Your task to perform on an android device: What's on my calendar tomorrow? Image 0: 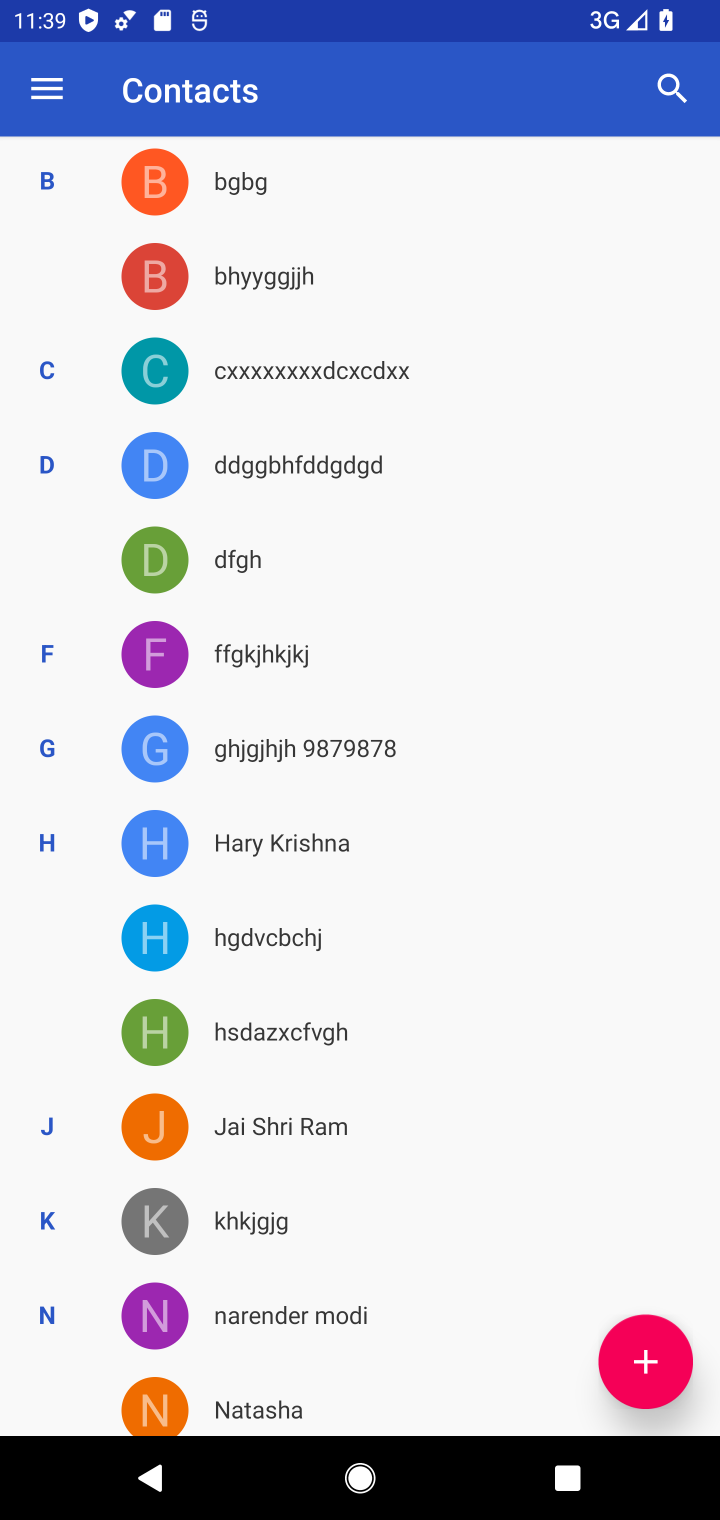
Step 0: press home button
Your task to perform on an android device: What's on my calendar tomorrow? Image 1: 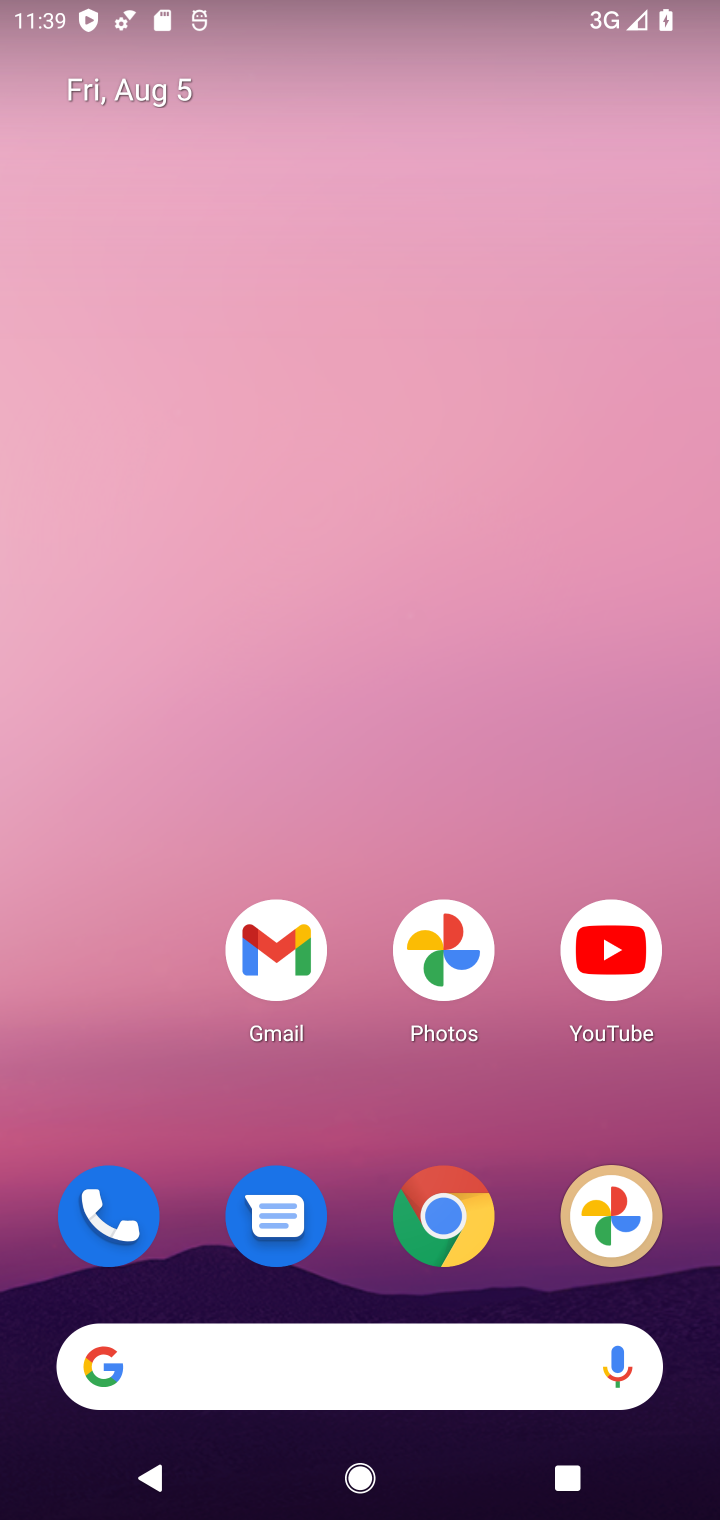
Step 1: drag from (461, 1369) to (528, 185)
Your task to perform on an android device: What's on my calendar tomorrow? Image 2: 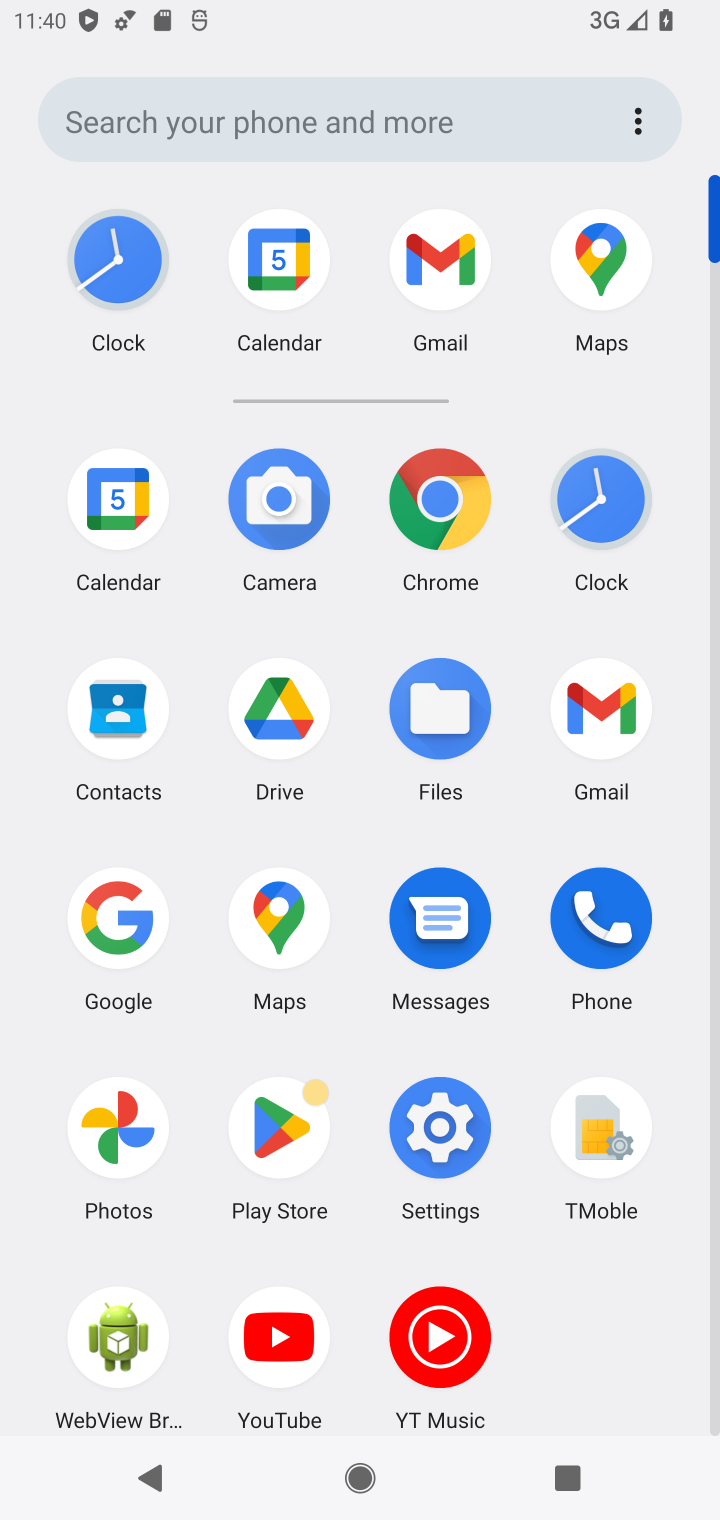
Step 2: click (88, 488)
Your task to perform on an android device: What's on my calendar tomorrow? Image 3: 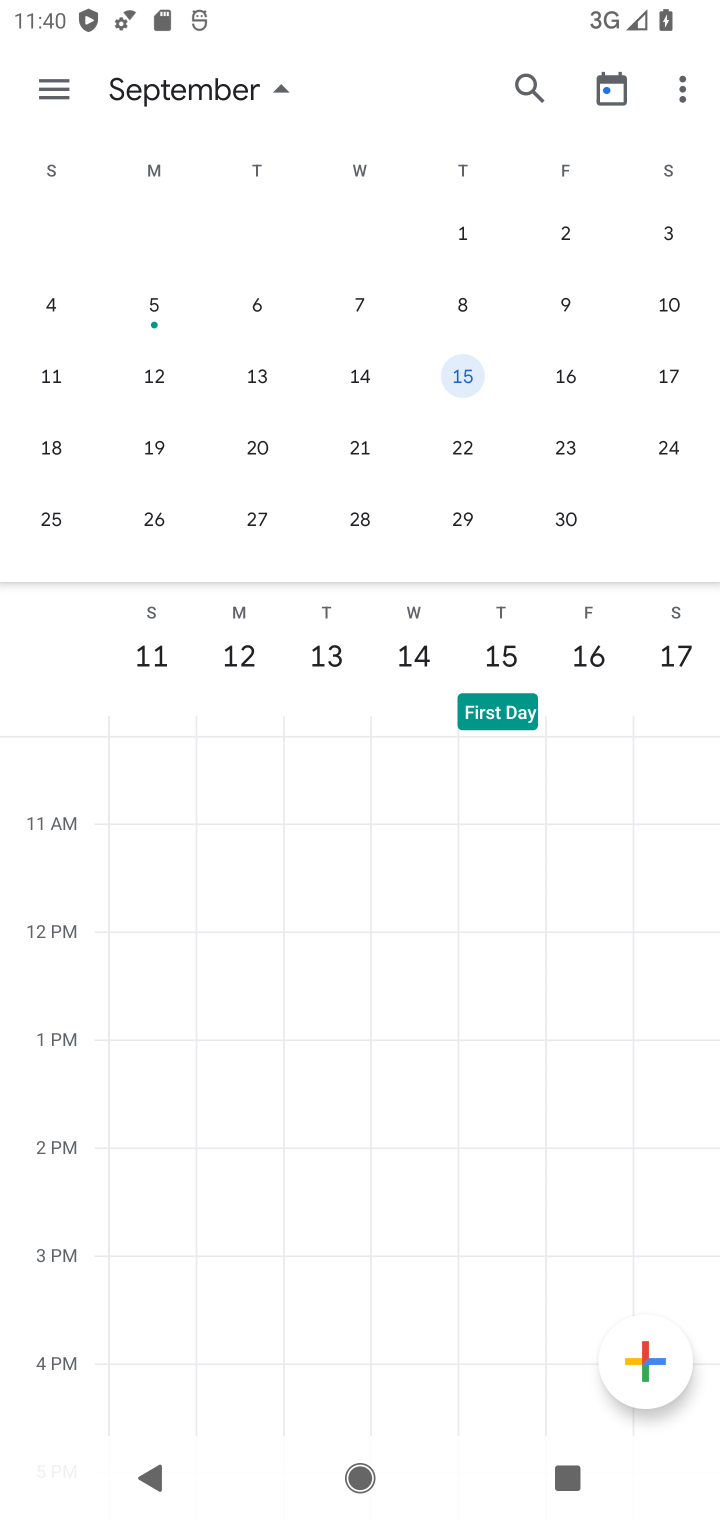
Step 3: drag from (99, 421) to (675, 437)
Your task to perform on an android device: What's on my calendar tomorrow? Image 4: 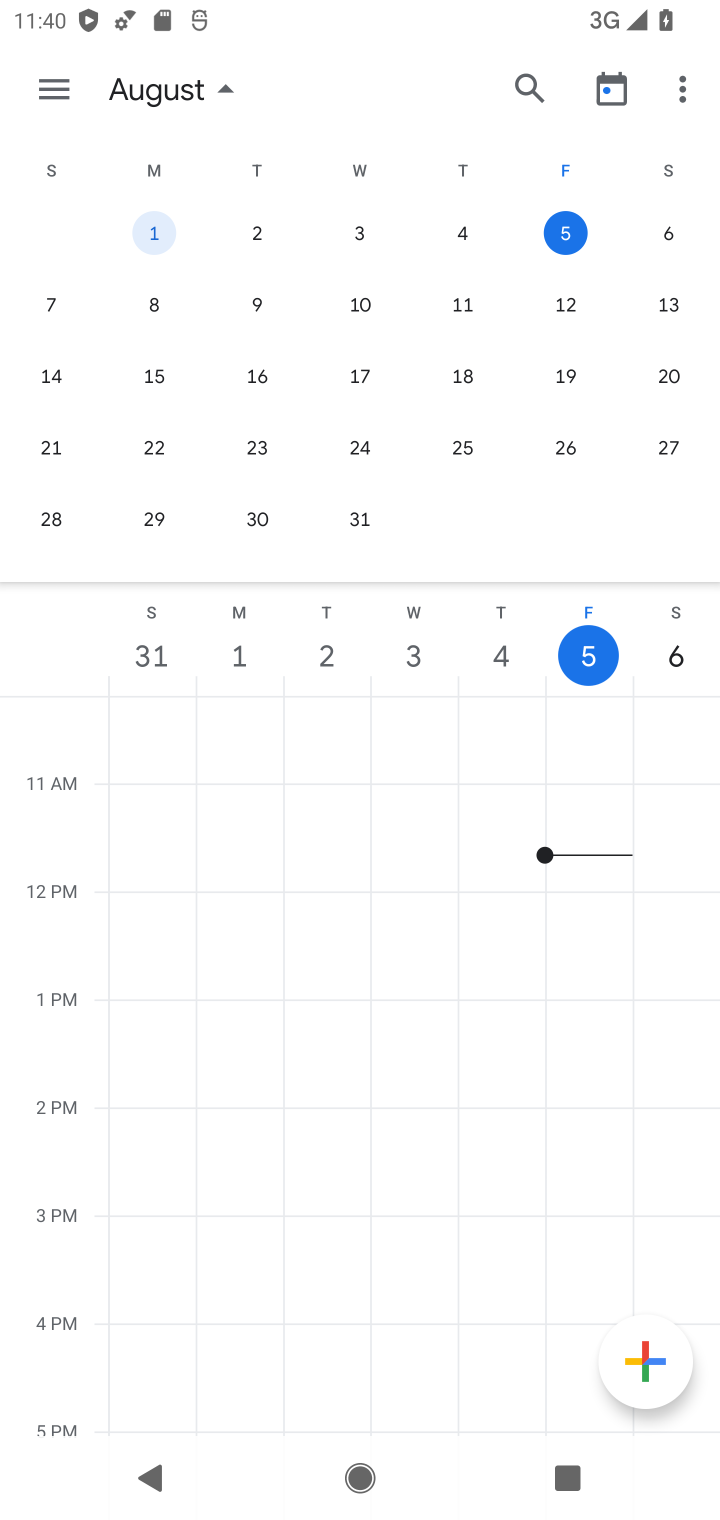
Step 4: click (662, 231)
Your task to perform on an android device: What's on my calendar tomorrow? Image 5: 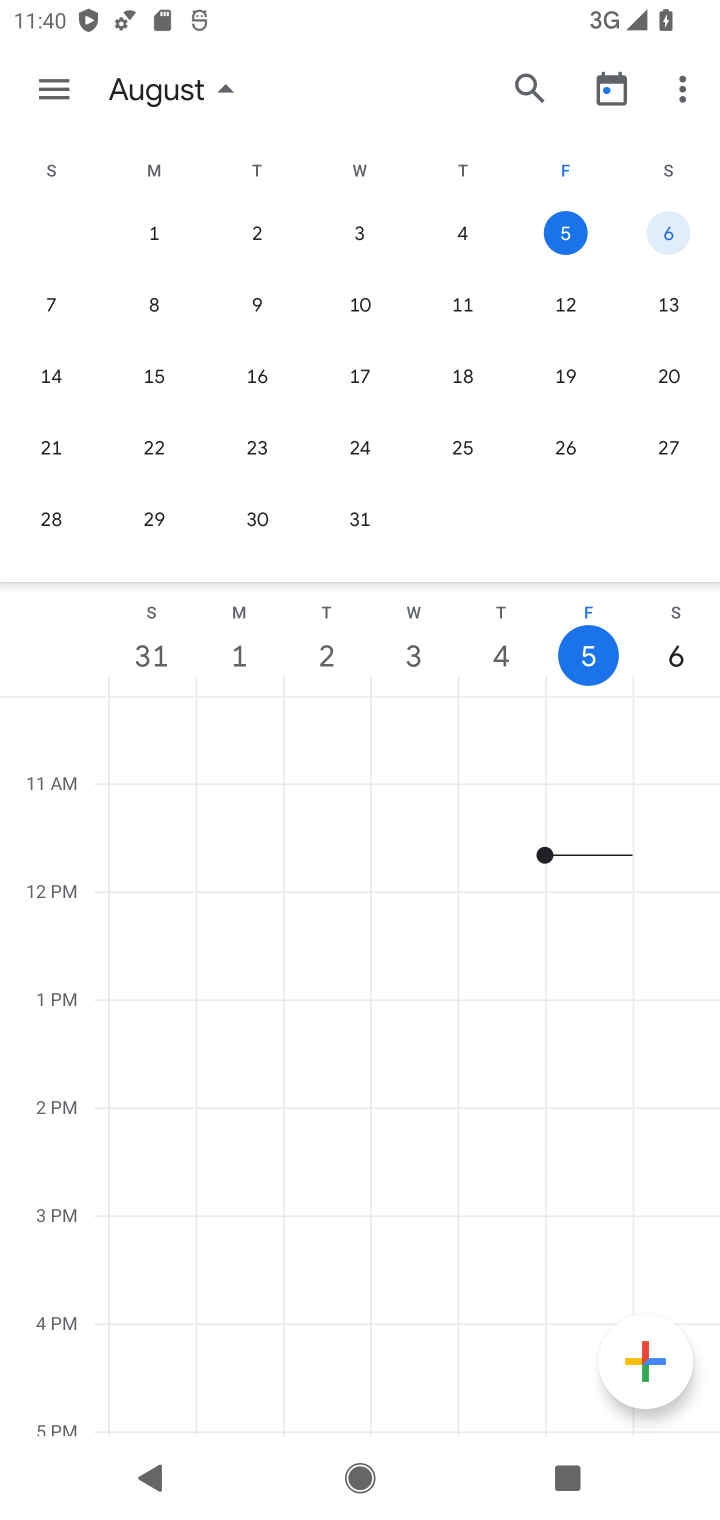
Step 5: task complete